Your task to perform on an android device: move a message to another label in the gmail app Image 0: 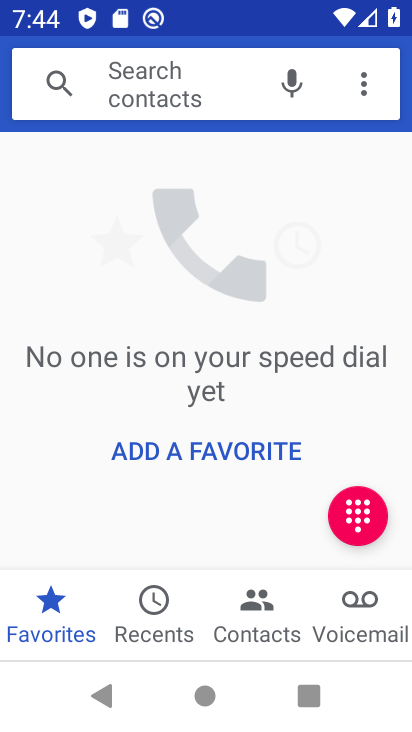
Step 0: drag from (168, 594) to (195, 214)
Your task to perform on an android device: move a message to another label in the gmail app Image 1: 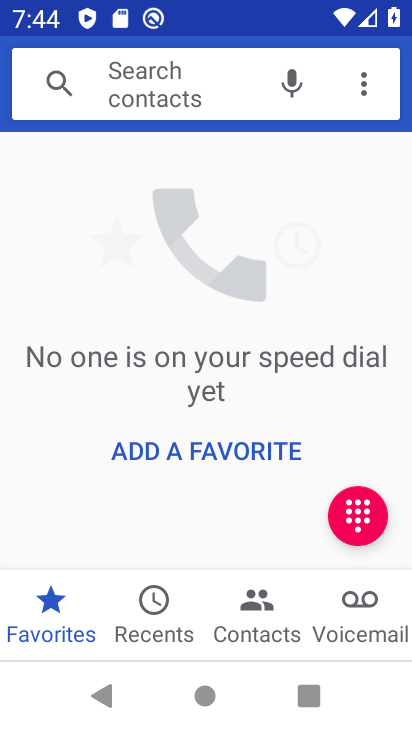
Step 1: press home button
Your task to perform on an android device: move a message to another label in the gmail app Image 2: 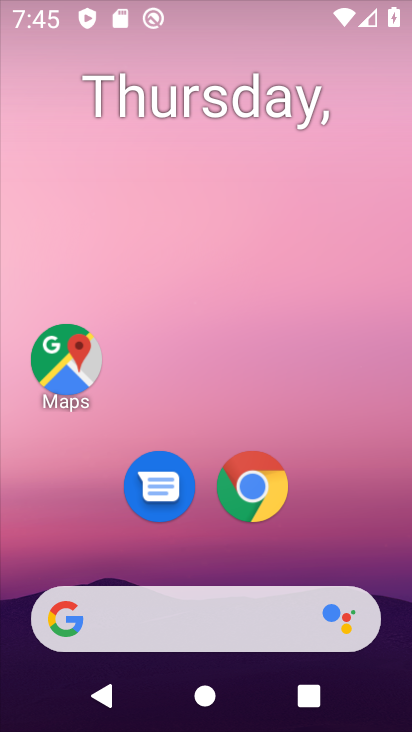
Step 2: drag from (220, 587) to (272, 180)
Your task to perform on an android device: move a message to another label in the gmail app Image 3: 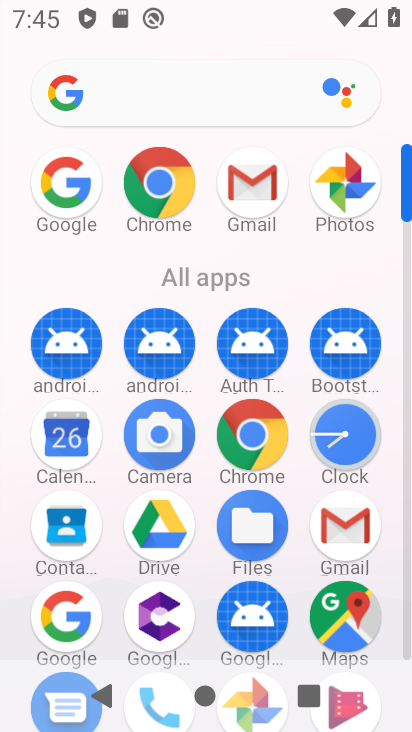
Step 3: click (360, 515)
Your task to perform on an android device: move a message to another label in the gmail app Image 4: 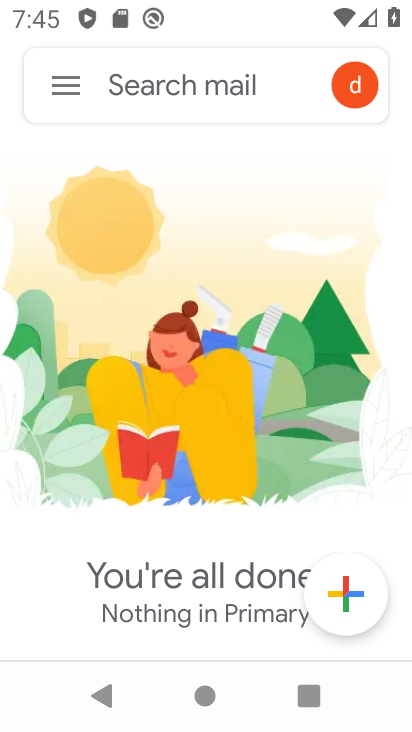
Step 4: click (54, 95)
Your task to perform on an android device: move a message to another label in the gmail app Image 5: 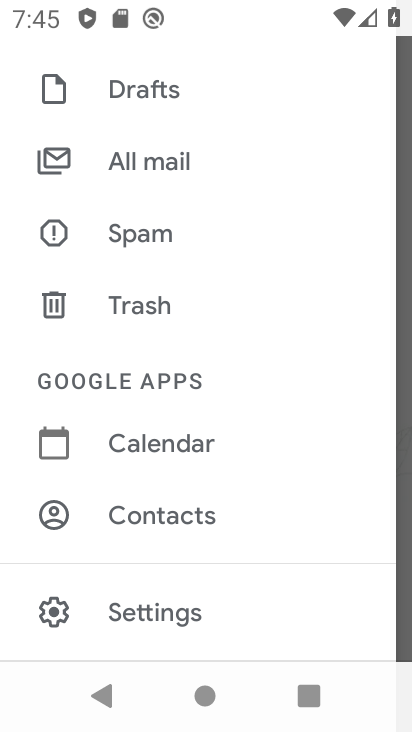
Step 5: click (198, 173)
Your task to perform on an android device: move a message to another label in the gmail app Image 6: 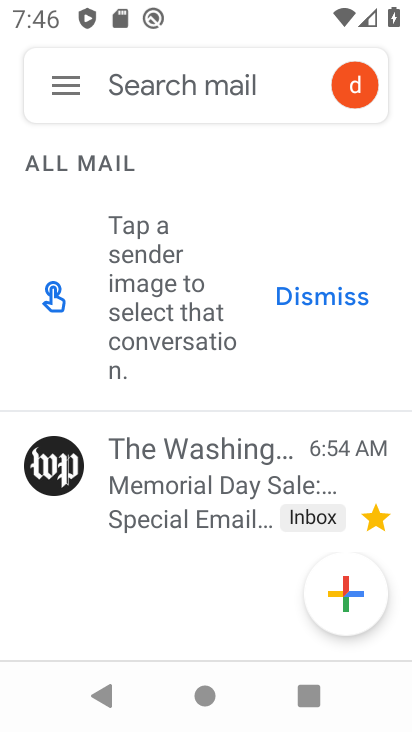
Step 6: click (205, 478)
Your task to perform on an android device: move a message to another label in the gmail app Image 7: 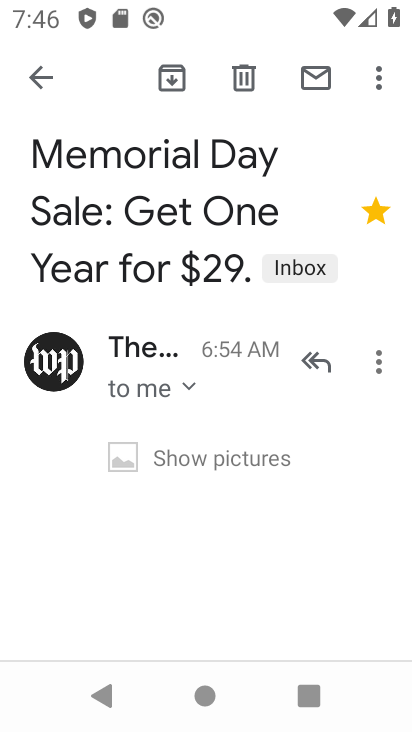
Step 7: click (378, 81)
Your task to perform on an android device: move a message to another label in the gmail app Image 8: 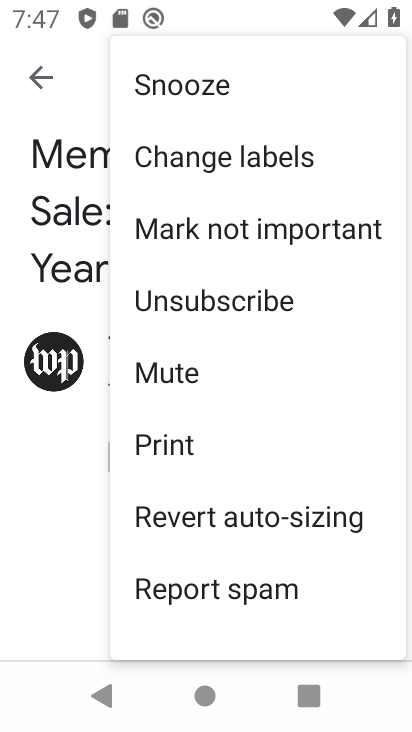
Step 8: drag from (254, 448) to (259, 206)
Your task to perform on an android device: move a message to another label in the gmail app Image 9: 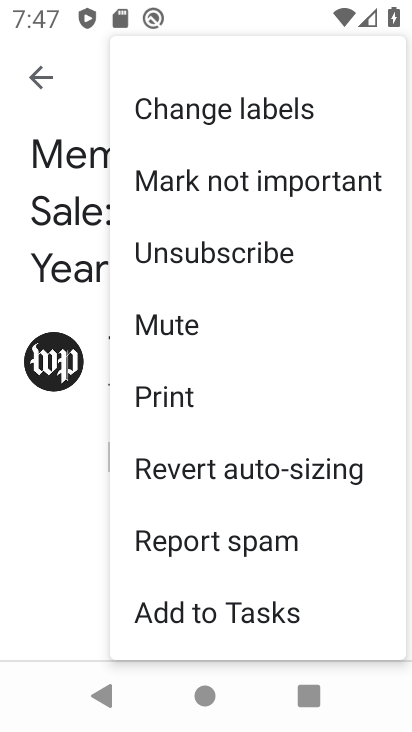
Step 9: click (275, 109)
Your task to perform on an android device: move a message to another label in the gmail app Image 10: 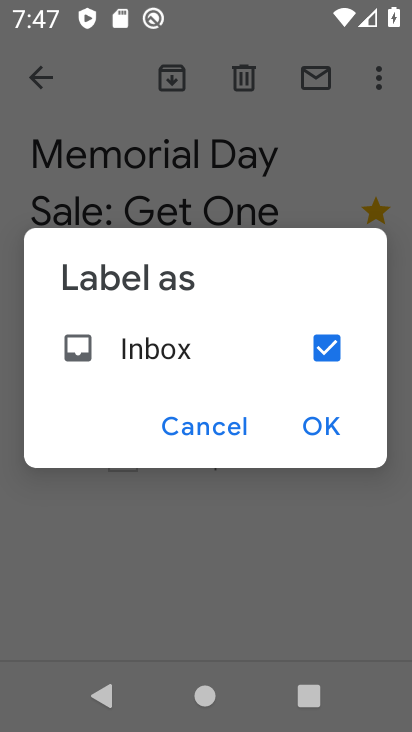
Step 10: click (328, 356)
Your task to perform on an android device: move a message to another label in the gmail app Image 11: 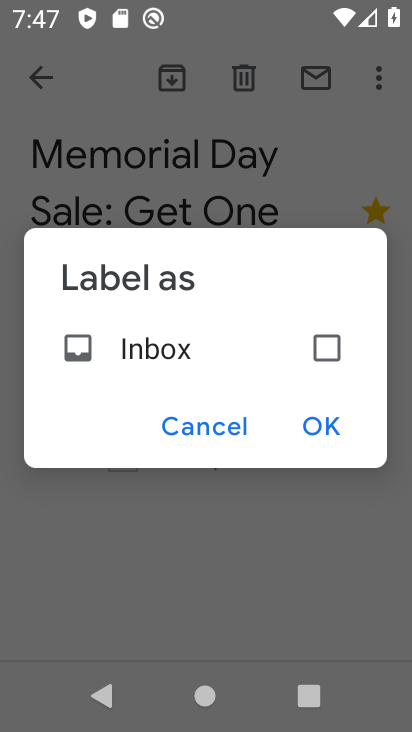
Step 11: click (322, 432)
Your task to perform on an android device: move a message to another label in the gmail app Image 12: 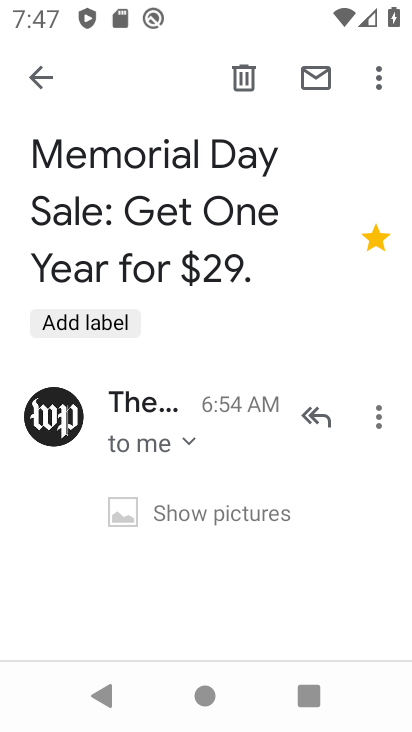
Step 12: task complete